Your task to perform on an android device: Open Android settings Image 0: 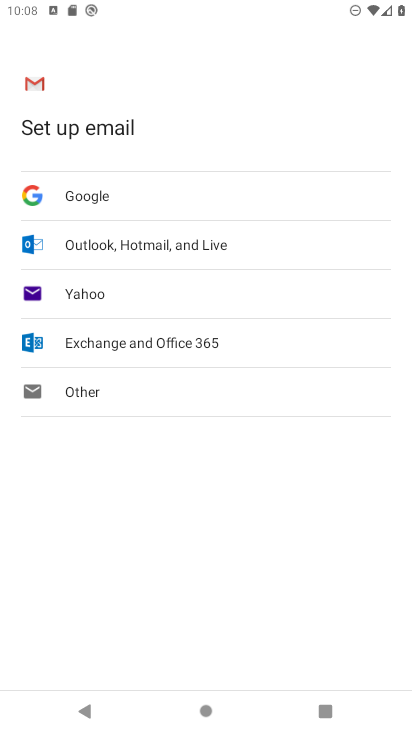
Step 0: press home button
Your task to perform on an android device: Open Android settings Image 1: 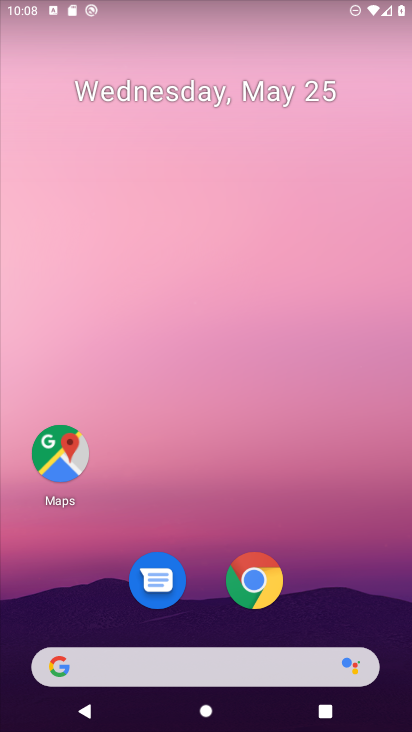
Step 1: drag from (63, 490) to (279, 180)
Your task to perform on an android device: Open Android settings Image 2: 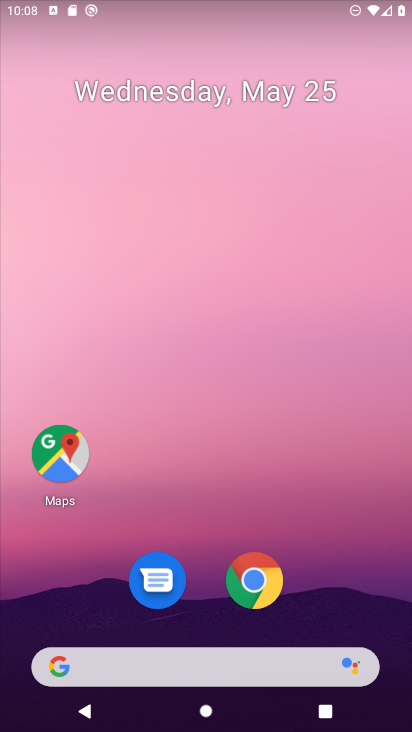
Step 2: drag from (31, 571) to (342, 78)
Your task to perform on an android device: Open Android settings Image 3: 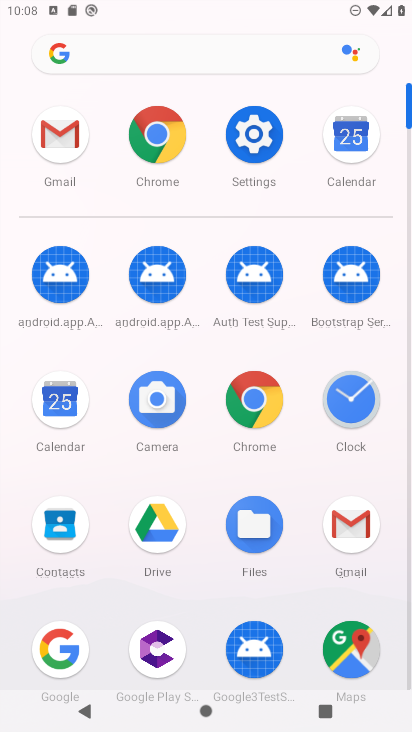
Step 3: click (273, 128)
Your task to perform on an android device: Open Android settings Image 4: 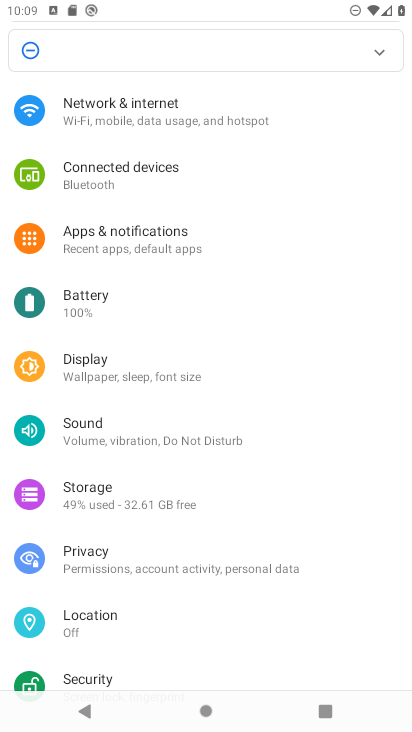
Step 4: task complete